Your task to perform on an android device: change alarm snooze length Image 0: 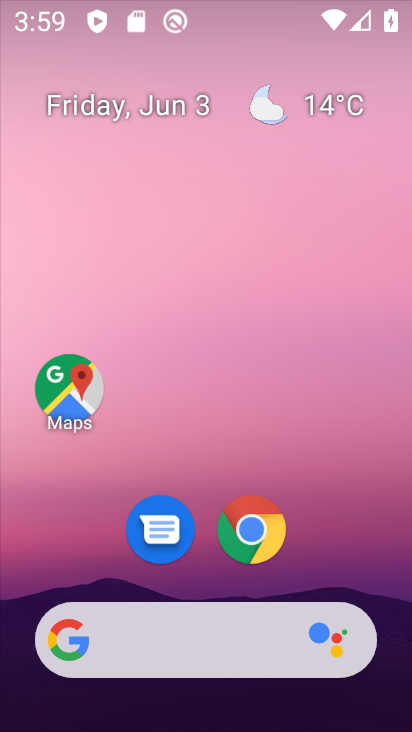
Step 0: click (402, 513)
Your task to perform on an android device: change alarm snooze length Image 1: 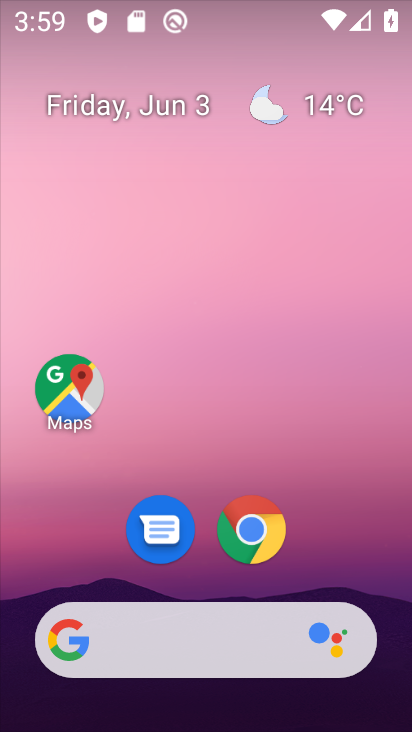
Step 1: drag from (380, 571) to (411, 84)
Your task to perform on an android device: change alarm snooze length Image 2: 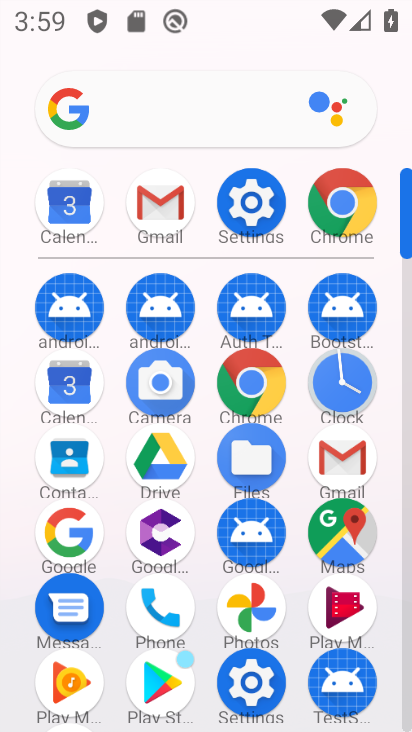
Step 2: click (355, 365)
Your task to perform on an android device: change alarm snooze length Image 3: 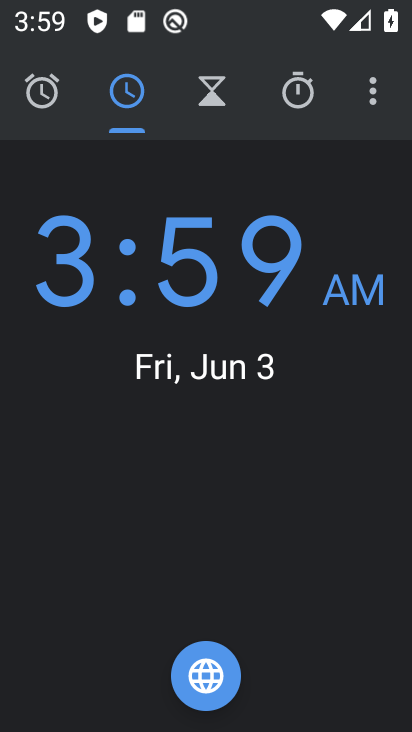
Step 3: click (387, 113)
Your task to perform on an android device: change alarm snooze length Image 4: 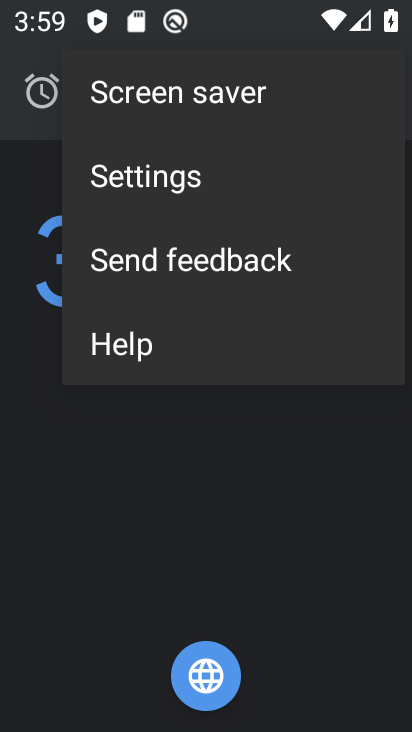
Step 4: click (237, 180)
Your task to perform on an android device: change alarm snooze length Image 5: 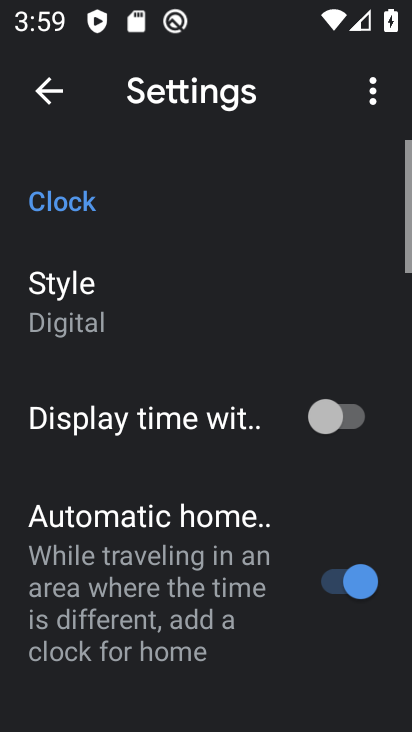
Step 5: drag from (179, 642) to (275, 168)
Your task to perform on an android device: change alarm snooze length Image 6: 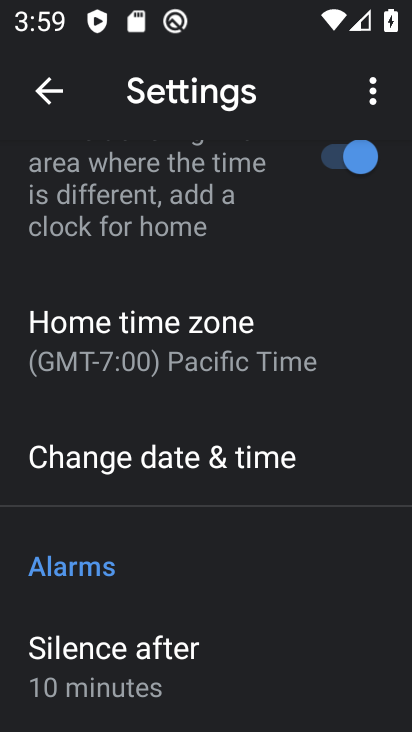
Step 6: drag from (174, 619) to (260, 221)
Your task to perform on an android device: change alarm snooze length Image 7: 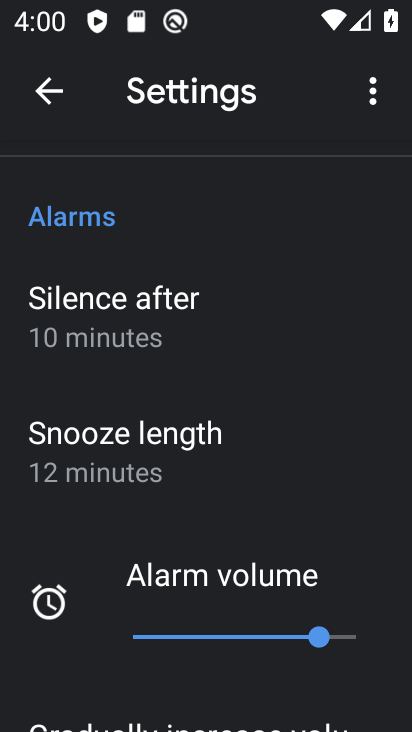
Step 7: click (169, 429)
Your task to perform on an android device: change alarm snooze length Image 8: 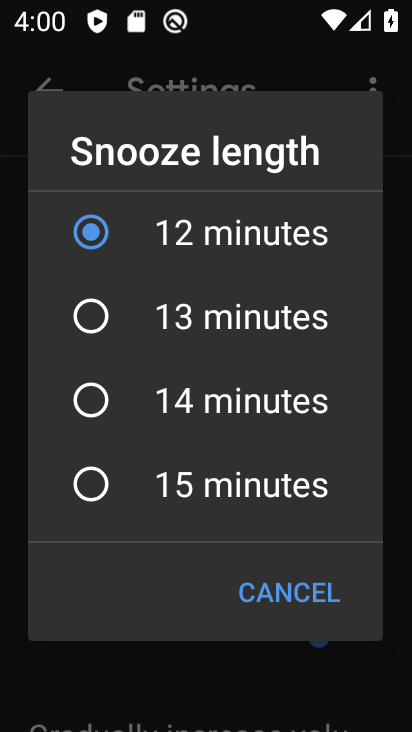
Step 8: click (94, 396)
Your task to perform on an android device: change alarm snooze length Image 9: 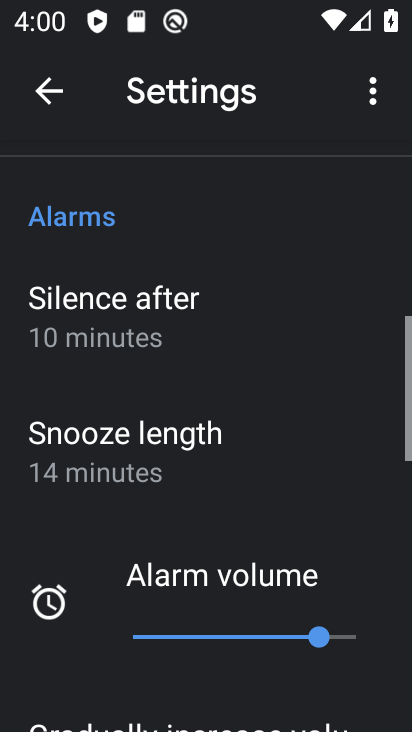
Step 9: task complete